Your task to perform on an android device: turn on the 12-hour format for clock Image 0: 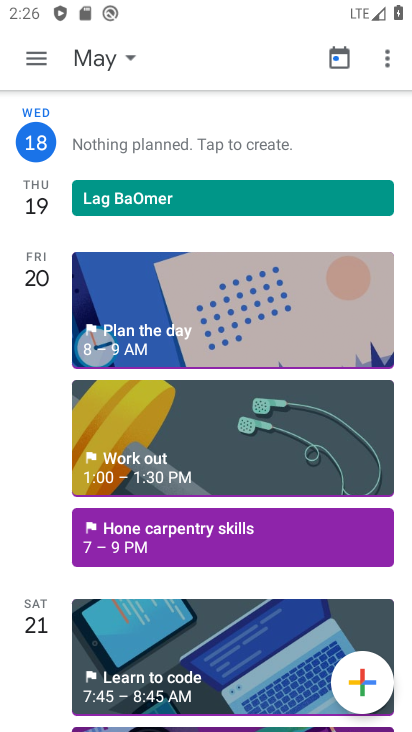
Step 0: press home button
Your task to perform on an android device: turn on the 12-hour format for clock Image 1: 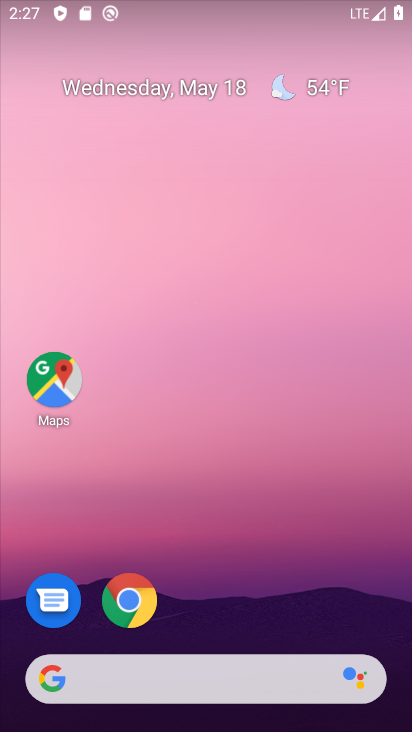
Step 1: drag from (173, 677) to (278, 105)
Your task to perform on an android device: turn on the 12-hour format for clock Image 2: 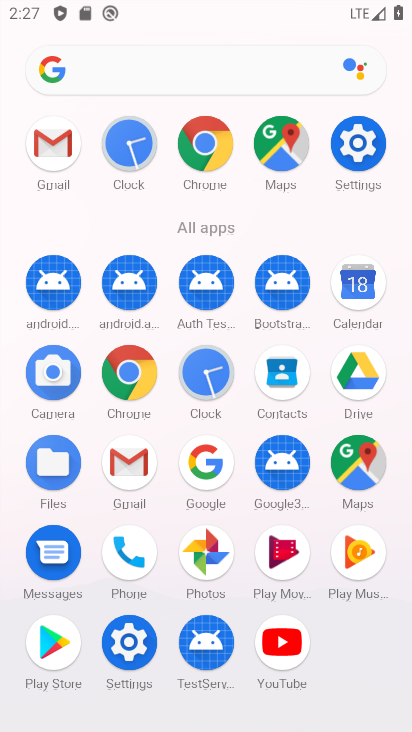
Step 2: click (138, 141)
Your task to perform on an android device: turn on the 12-hour format for clock Image 3: 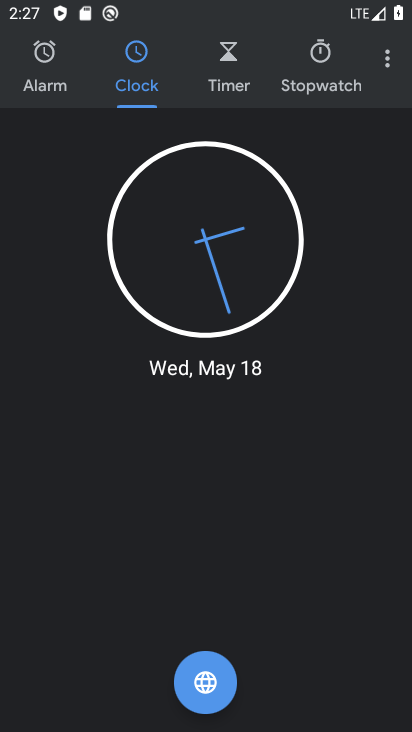
Step 3: click (384, 65)
Your task to perform on an android device: turn on the 12-hour format for clock Image 4: 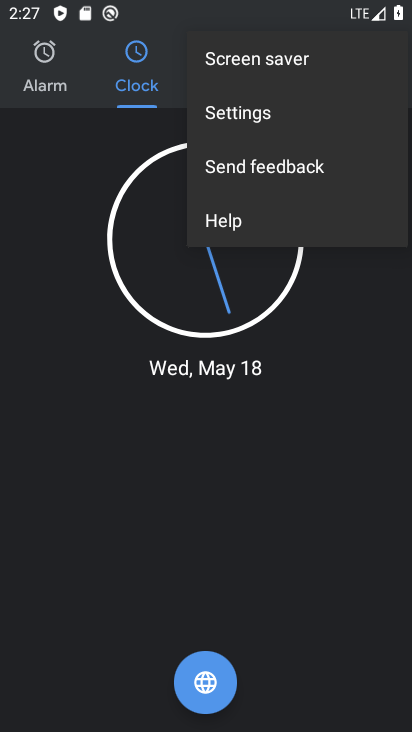
Step 4: click (247, 112)
Your task to perform on an android device: turn on the 12-hour format for clock Image 5: 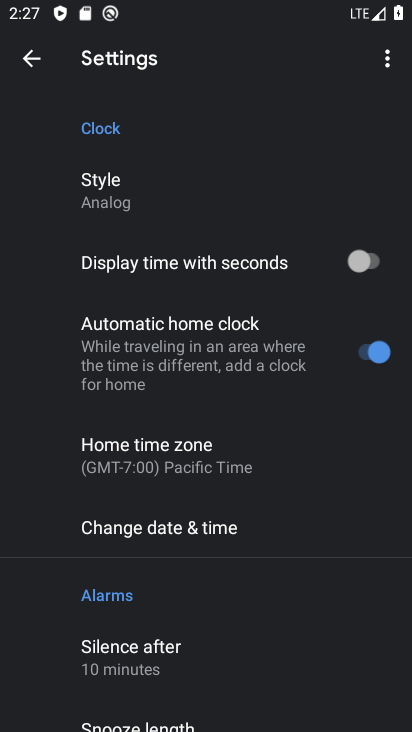
Step 5: click (203, 526)
Your task to perform on an android device: turn on the 12-hour format for clock Image 6: 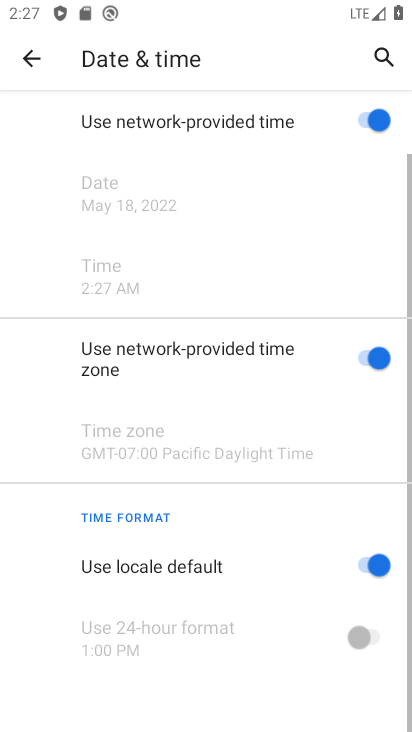
Step 6: task complete